Your task to perform on an android device: show emergency info Image 0: 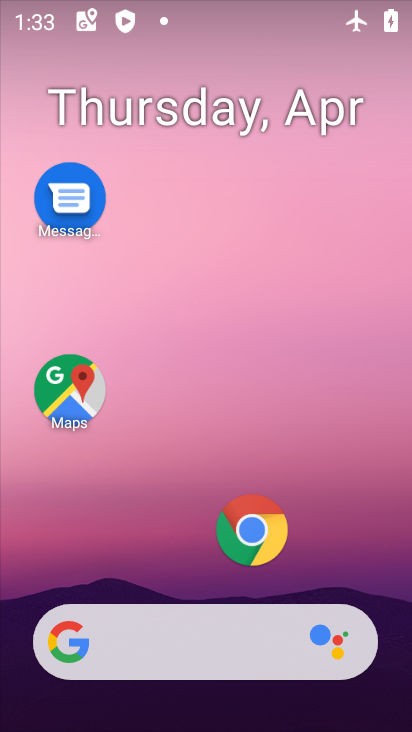
Step 0: drag from (199, 533) to (283, 675)
Your task to perform on an android device: show emergency info Image 1: 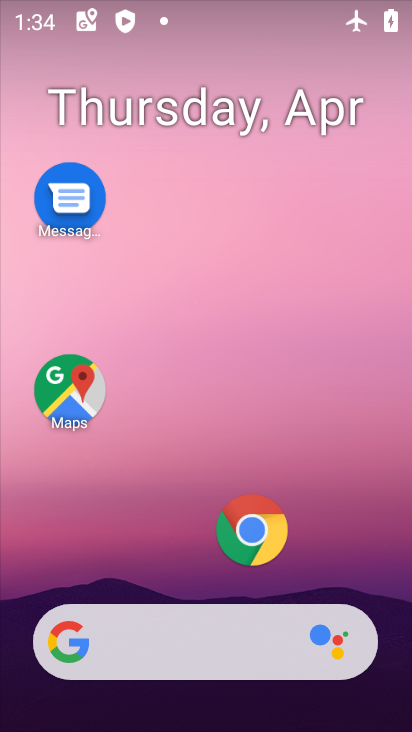
Step 1: click (262, 234)
Your task to perform on an android device: show emergency info Image 2: 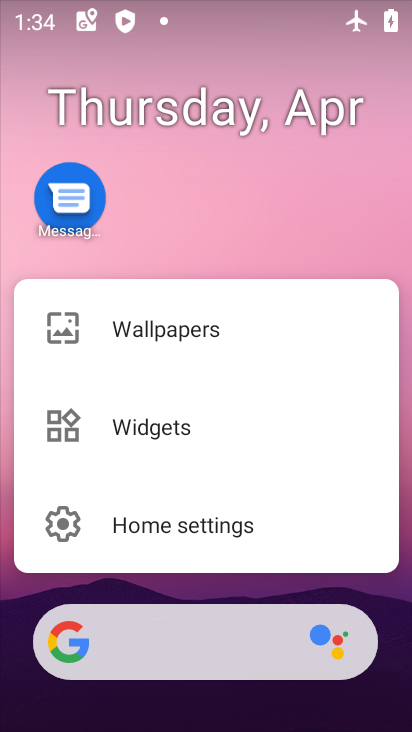
Step 2: click (262, 234)
Your task to perform on an android device: show emergency info Image 3: 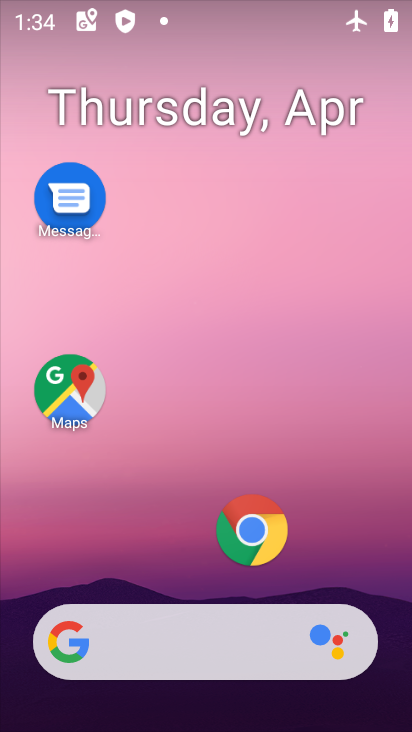
Step 3: drag from (158, 638) to (238, 16)
Your task to perform on an android device: show emergency info Image 4: 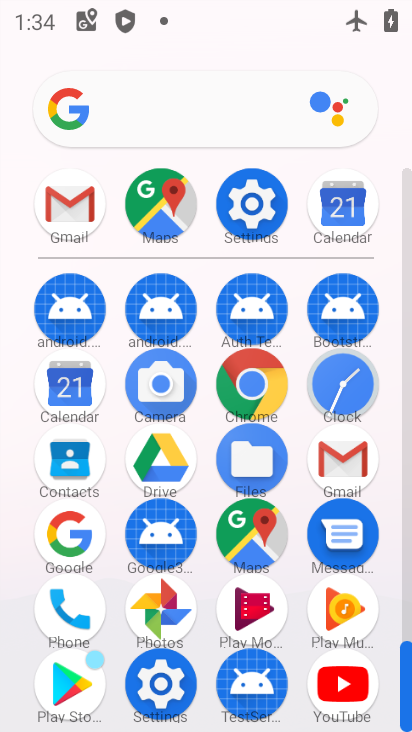
Step 4: click (253, 197)
Your task to perform on an android device: show emergency info Image 5: 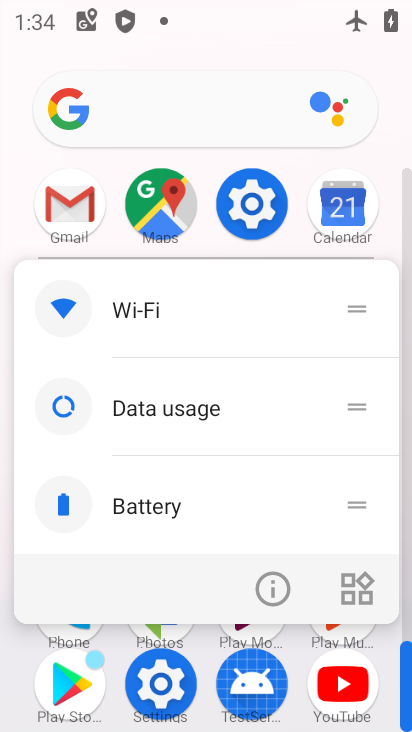
Step 5: click (253, 197)
Your task to perform on an android device: show emergency info Image 6: 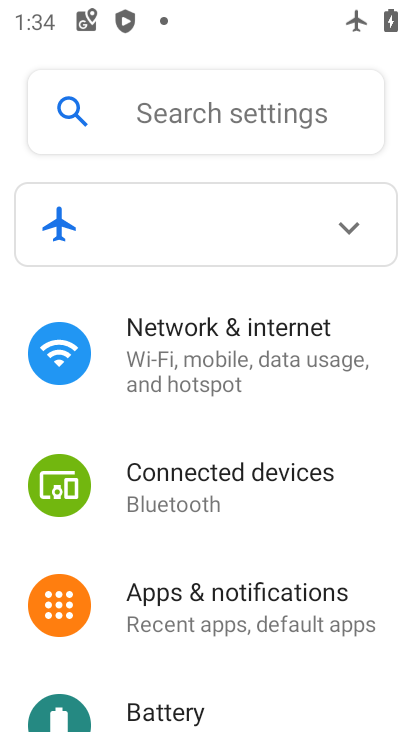
Step 6: click (228, 375)
Your task to perform on an android device: show emergency info Image 7: 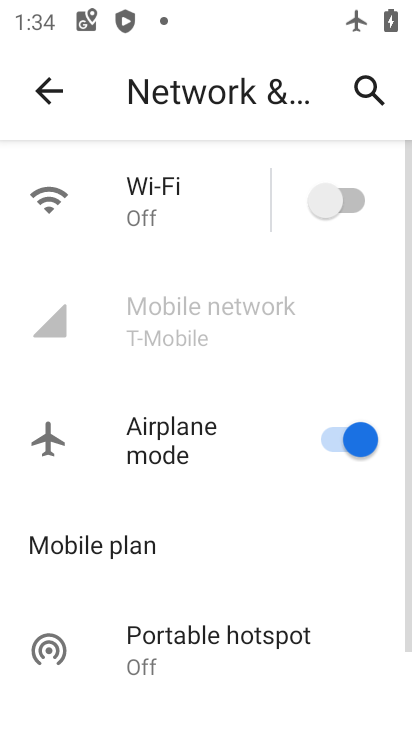
Step 7: drag from (227, 567) to (216, 87)
Your task to perform on an android device: show emergency info Image 8: 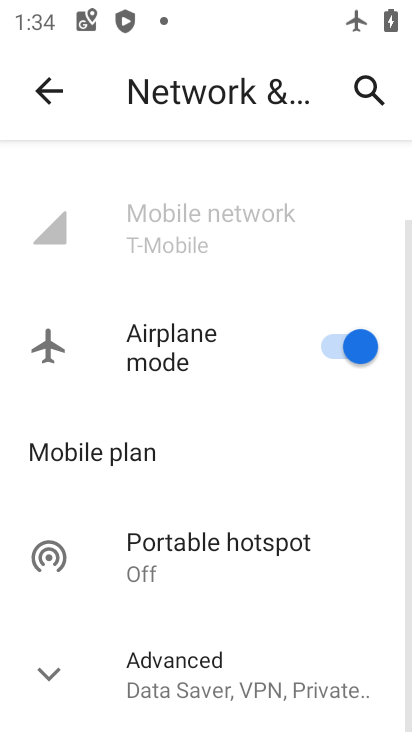
Step 8: drag from (198, 610) to (198, 181)
Your task to perform on an android device: show emergency info Image 9: 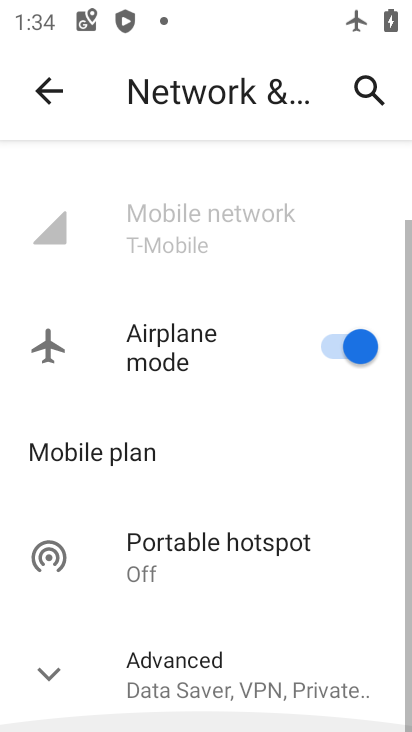
Step 9: click (63, 86)
Your task to perform on an android device: show emergency info Image 10: 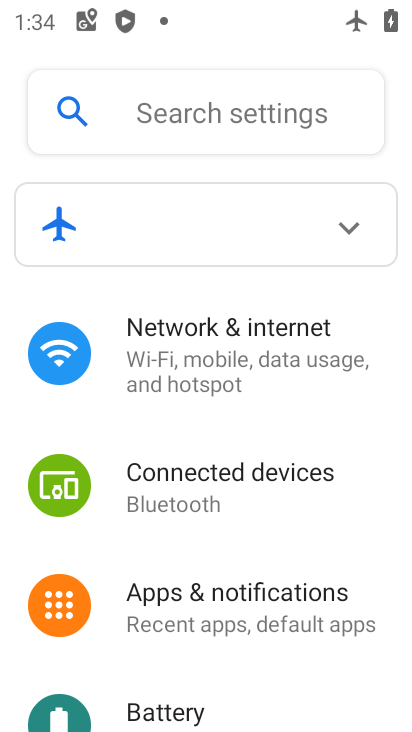
Step 10: drag from (272, 630) to (218, 76)
Your task to perform on an android device: show emergency info Image 11: 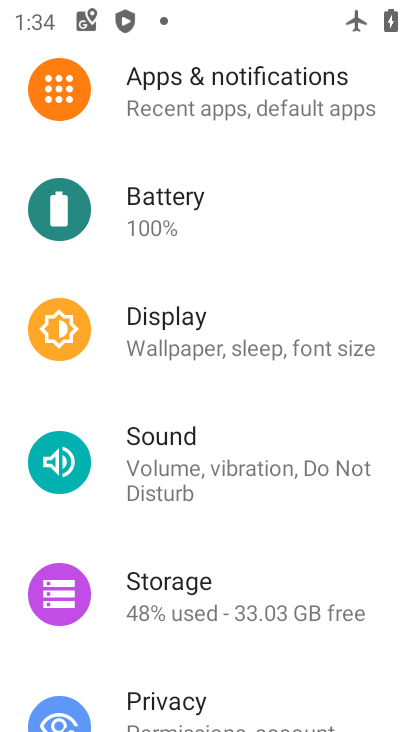
Step 11: drag from (285, 697) to (239, 117)
Your task to perform on an android device: show emergency info Image 12: 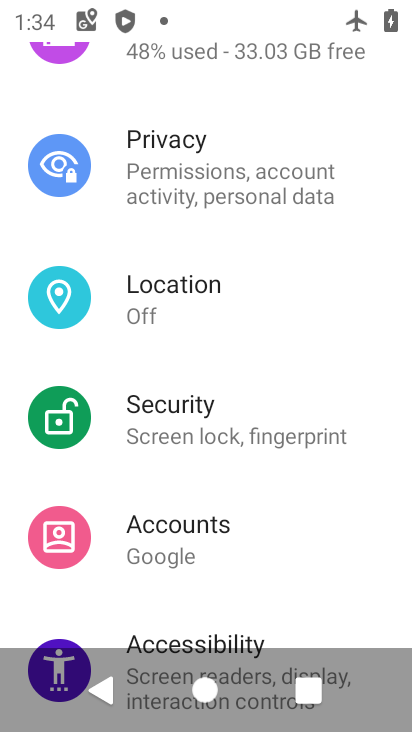
Step 12: drag from (270, 588) to (270, 4)
Your task to perform on an android device: show emergency info Image 13: 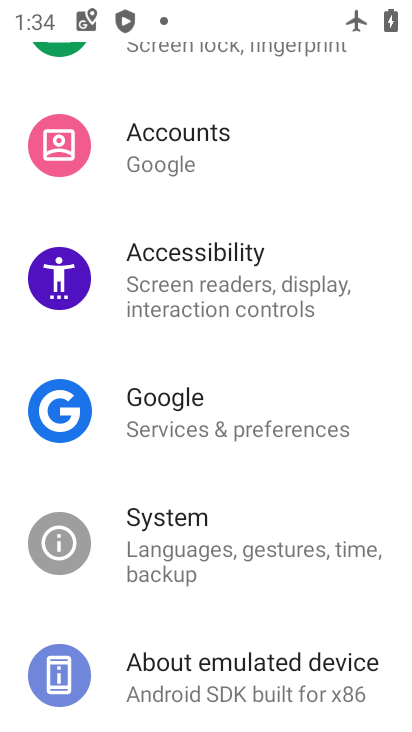
Step 13: click (247, 677)
Your task to perform on an android device: show emergency info Image 14: 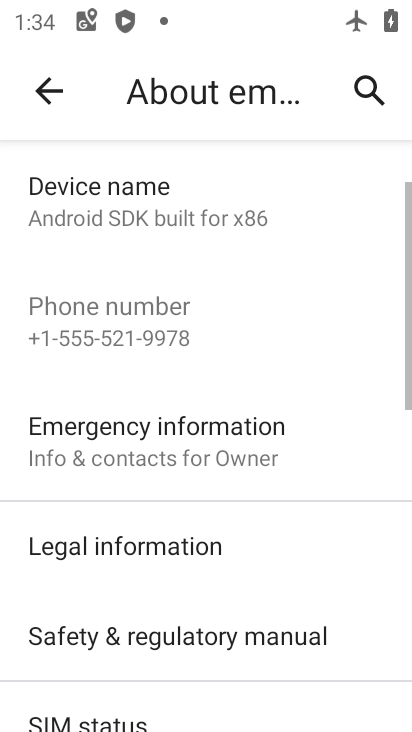
Step 14: drag from (246, 671) to (167, 119)
Your task to perform on an android device: show emergency info Image 15: 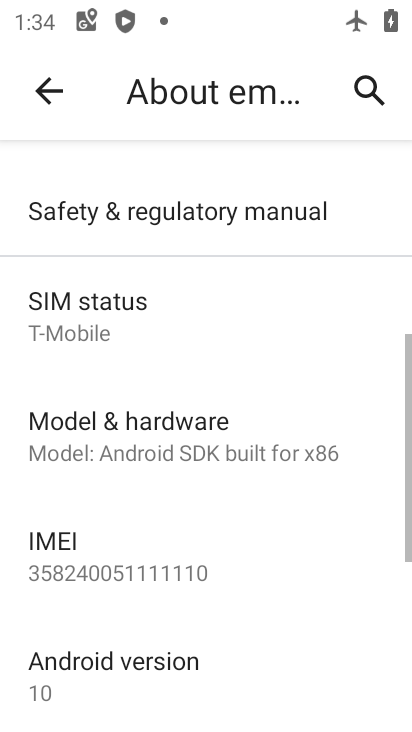
Step 15: drag from (193, 708) to (156, 106)
Your task to perform on an android device: show emergency info Image 16: 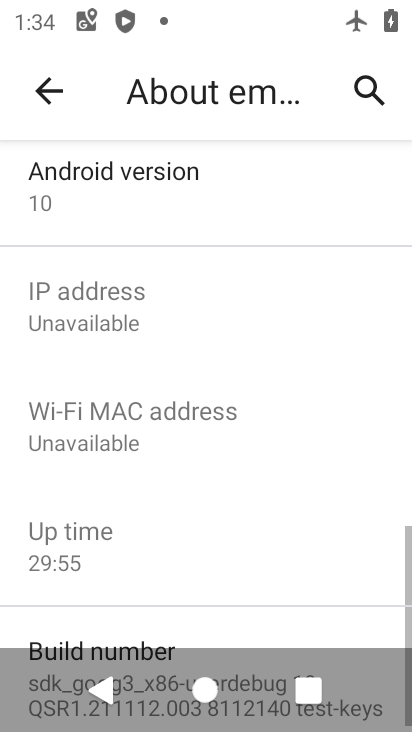
Step 16: drag from (219, 571) to (166, 85)
Your task to perform on an android device: show emergency info Image 17: 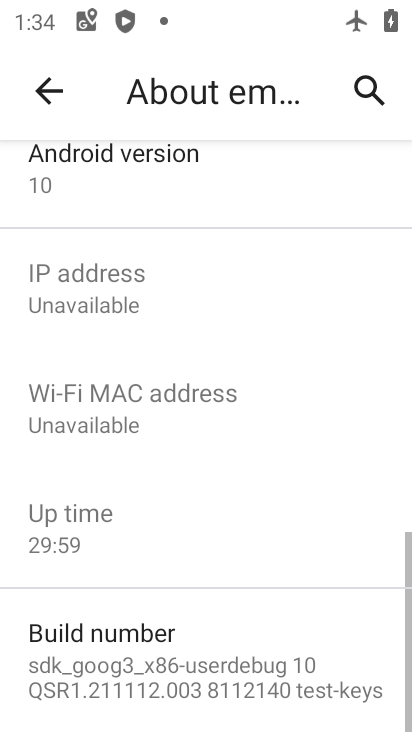
Step 17: click (55, 98)
Your task to perform on an android device: show emergency info Image 18: 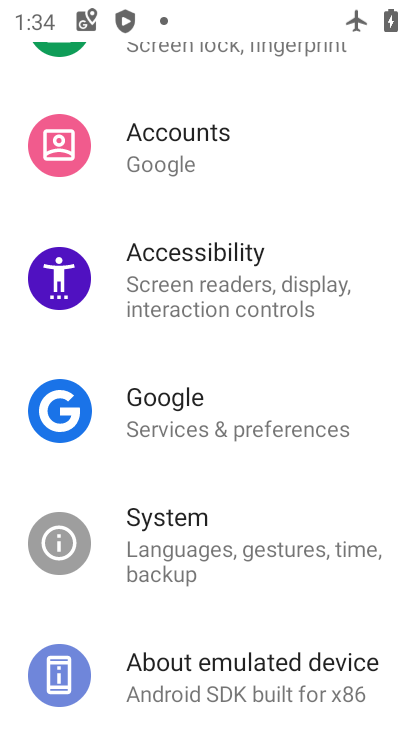
Step 18: click (240, 682)
Your task to perform on an android device: show emergency info Image 19: 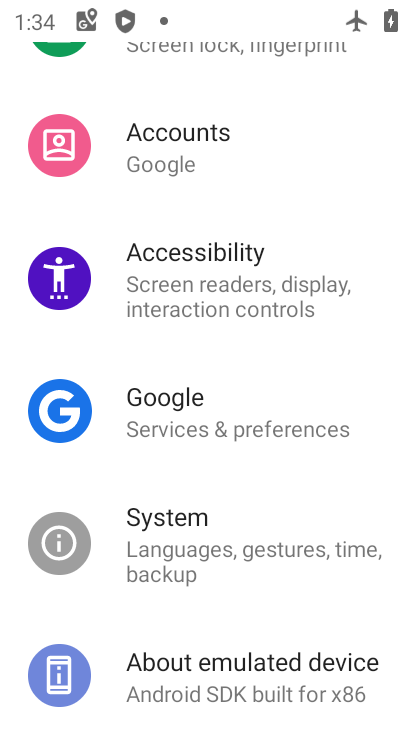
Step 19: drag from (240, 682) to (200, 344)
Your task to perform on an android device: show emergency info Image 20: 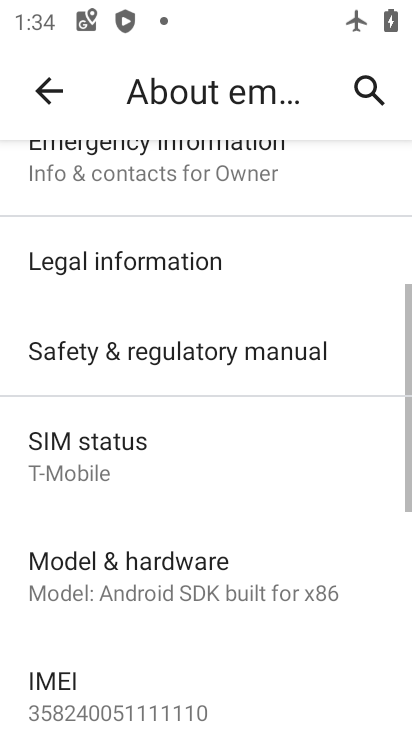
Step 20: click (161, 179)
Your task to perform on an android device: show emergency info Image 21: 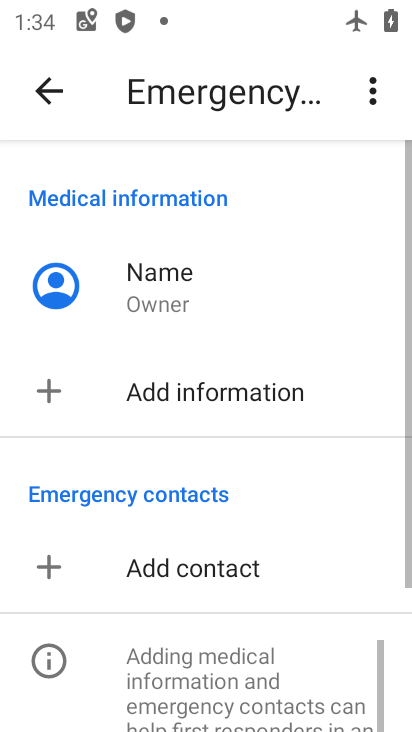
Step 21: task complete